Your task to perform on an android device: set the stopwatch Image 0: 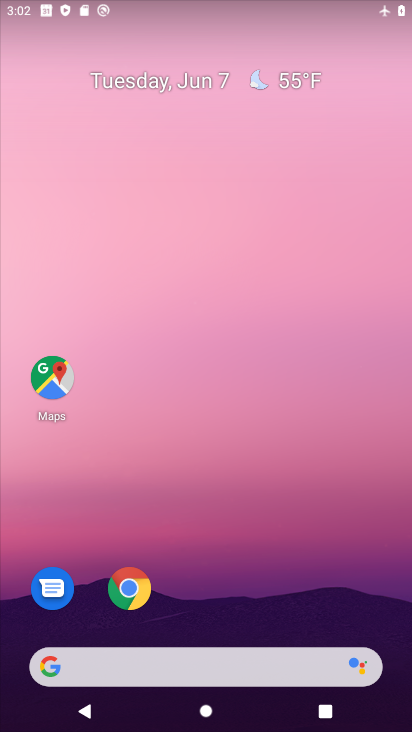
Step 0: press home button
Your task to perform on an android device: set the stopwatch Image 1: 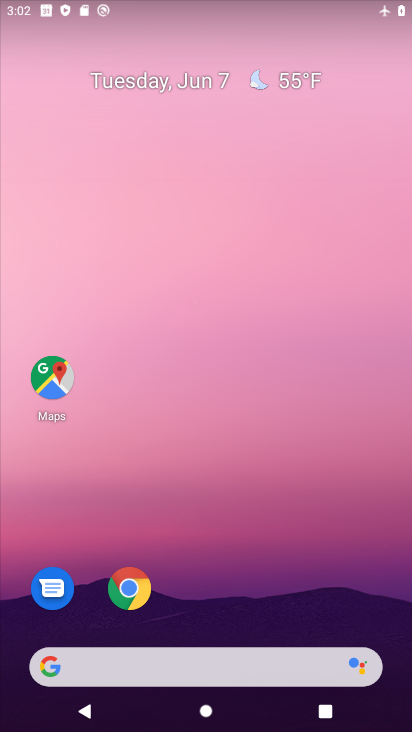
Step 1: drag from (227, 614) to (240, 5)
Your task to perform on an android device: set the stopwatch Image 2: 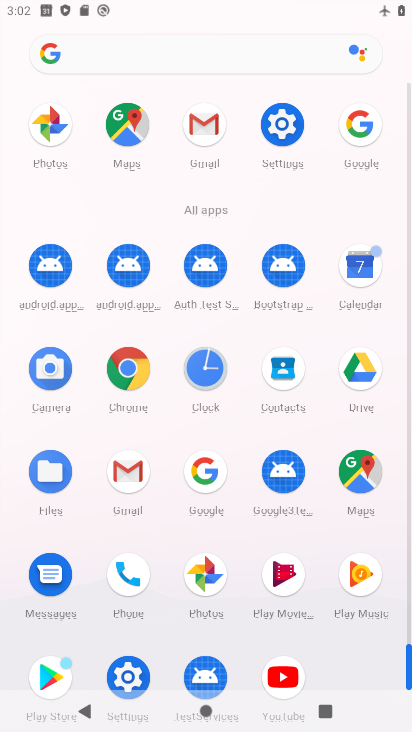
Step 2: click (205, 372)
Your task to perform on an android device: set the stopwatch Image 3: 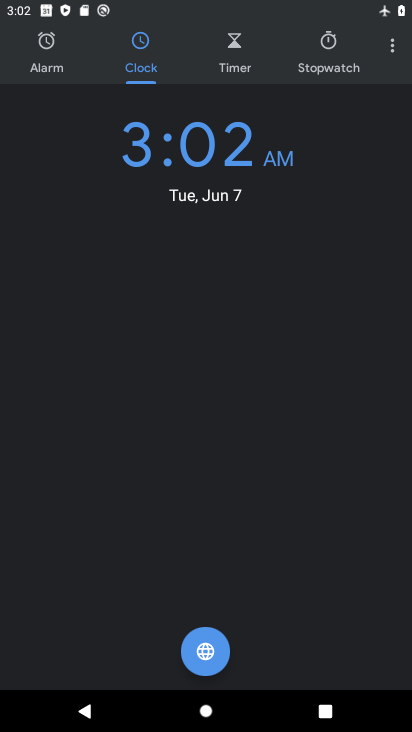
Step 3: click (330, 38)
Your task to perform on an android device: set the stopwatch Image 4: 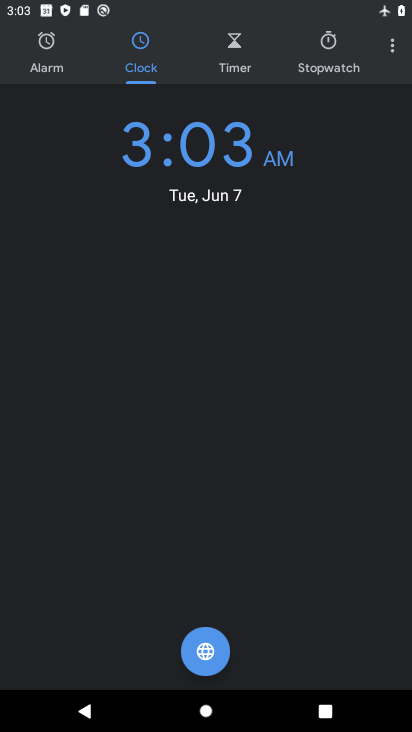
Step 4: click (184, 161)
Your task to perform on an android device: set the stopwatch Image 5: 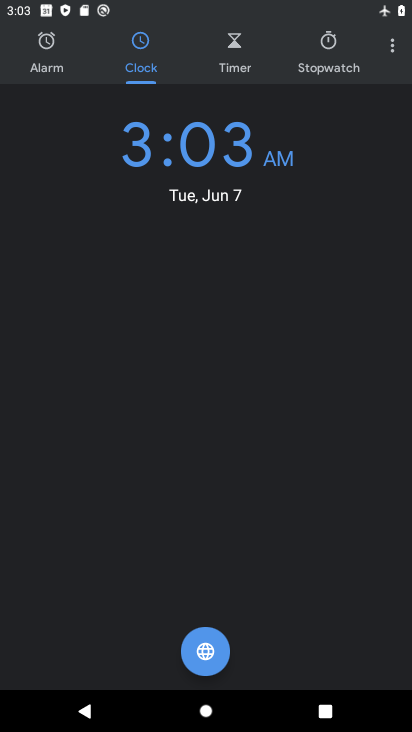
Step 5: click (332, 38)
Your task to perform on an android device: set the stopwatch Image 6: 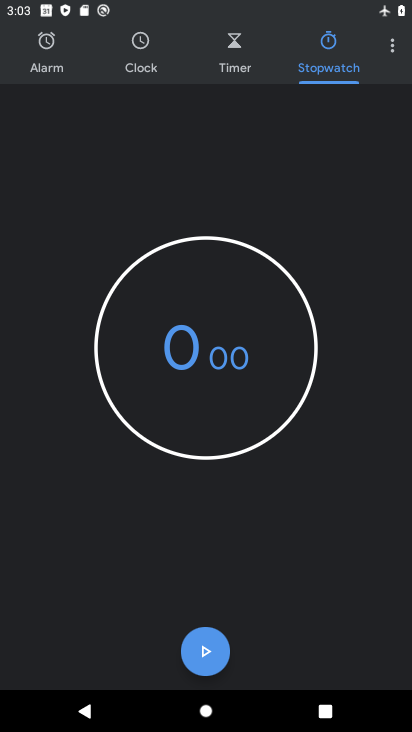
Step 6: click (180, 339)
Your task to perform on an android device: set the stopwatch Image 7: 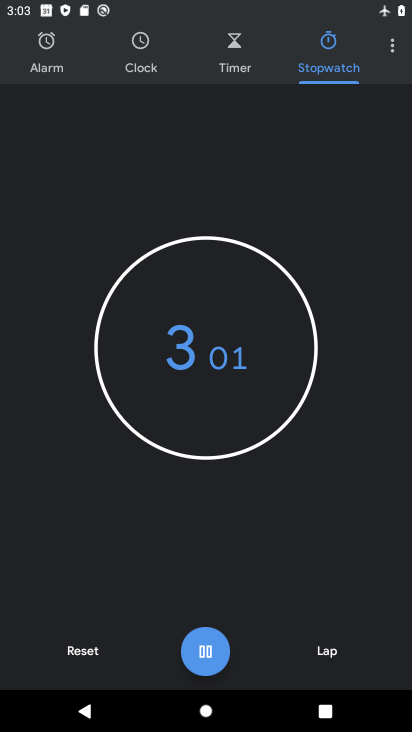
Step 7: task complete